Your task to perform on an android device: empty trash in google photos Image 0: 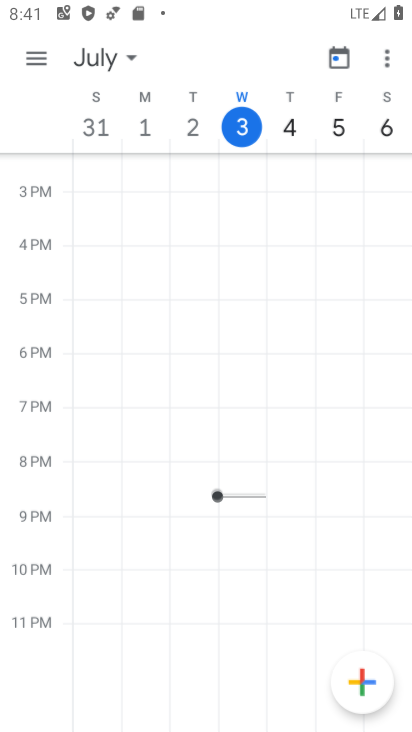
Step 0: drag from (224, 611) to (203, 22)
Your task to perform on an android device: empty trash in google photos Image 1: 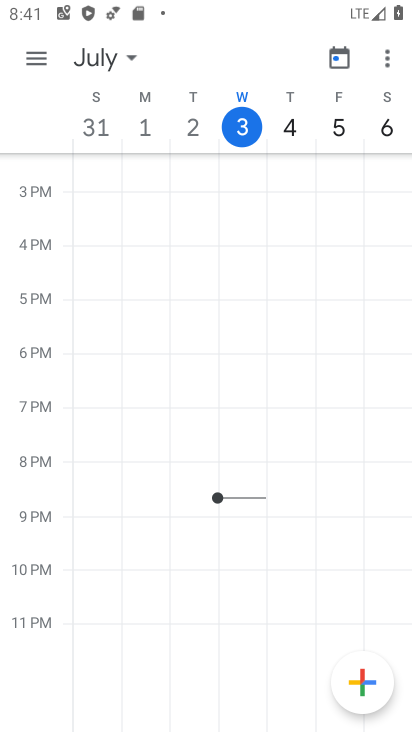
Step 1: press home button
Your task to perform on an android device: empty trash in google photos Image 2: 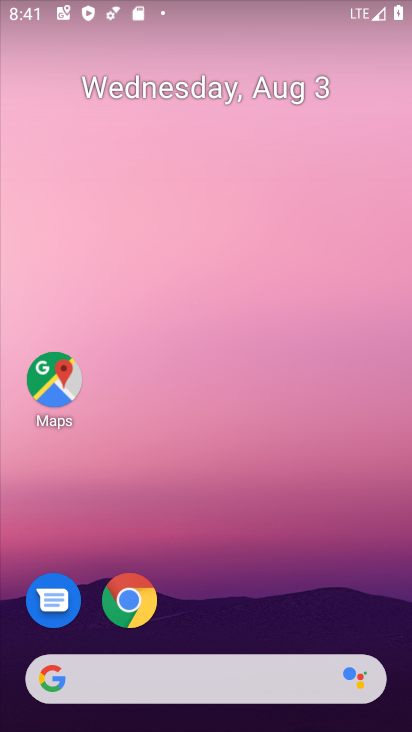
Step 2: drag from (205, 587) to (222, 53)
Your task to perform on an android device: empty trash in google photos Image 3: 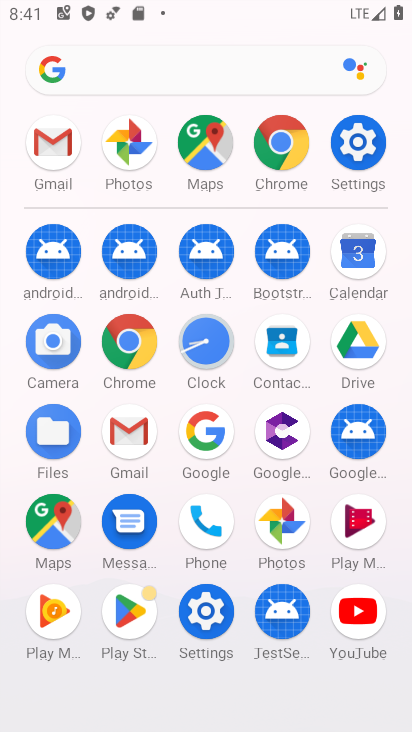
Step 3: click (290, 518)
Your task to perform on an android device: empty trash in google photos Image 4: 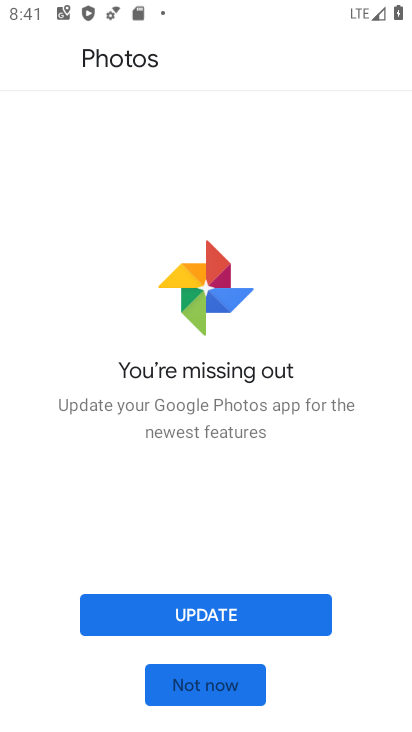
Step 4: click (218, 689)
Your task to perform on an android device: empty trash in google photos Image 5: 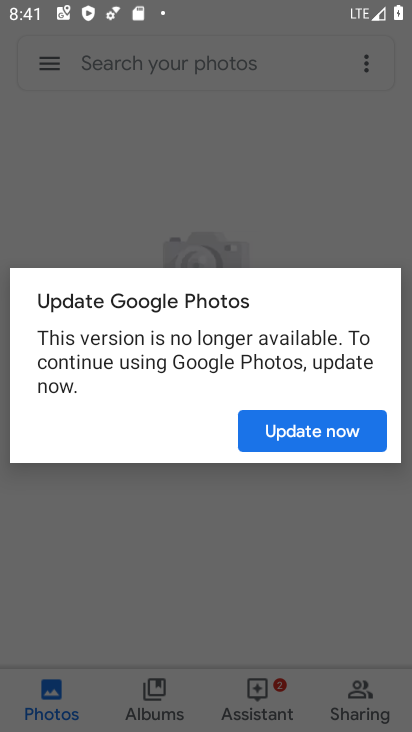
Step 5: click (336, 430)
Your task to perform on an android device: empty trash in google photos Image 6: 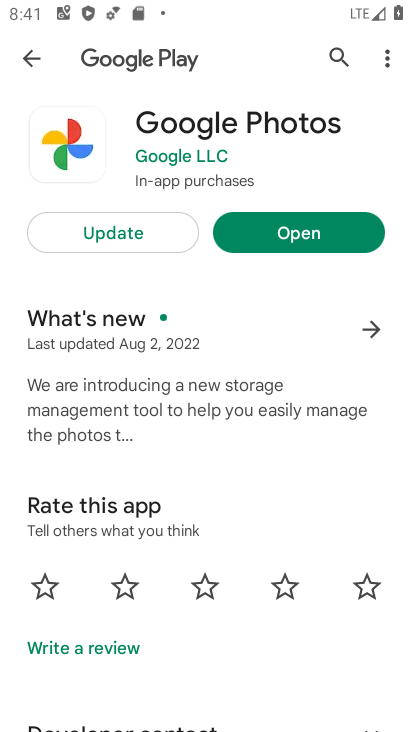
Step 6: click (291, 229)
Your task to perform on an android device: empty trash in google photos Image 7: 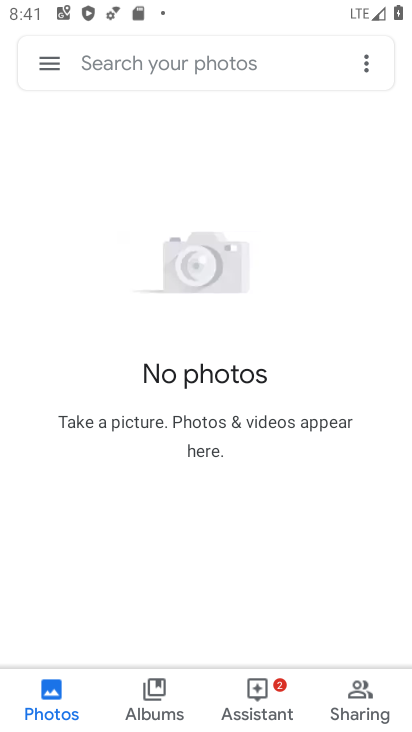
Step 7: click (44, 71)
Your task to perform on an android device: empty trash in google photos Image 8: 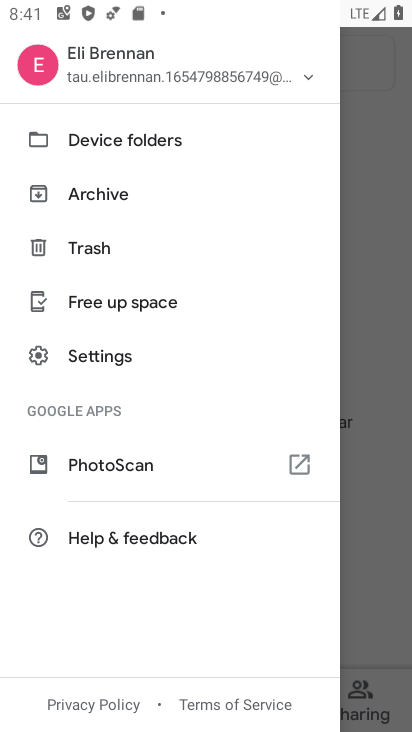
Step 8: click (99, 255)
Your task to perform on an android device: empty trash in google photos Image 9: 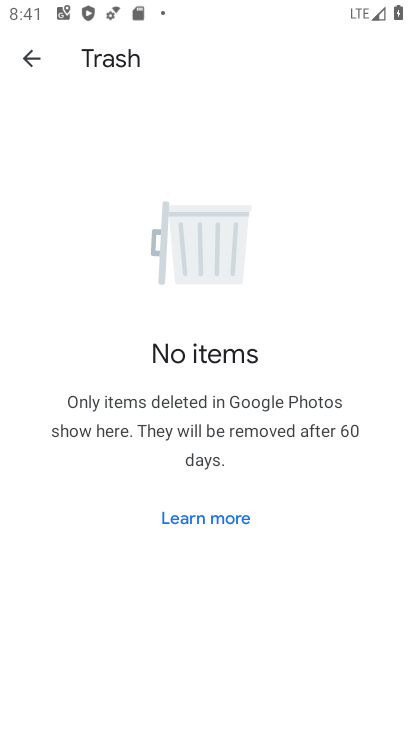
Step 9: task complete